Your task to perform on an android device: check battery use Image 0: 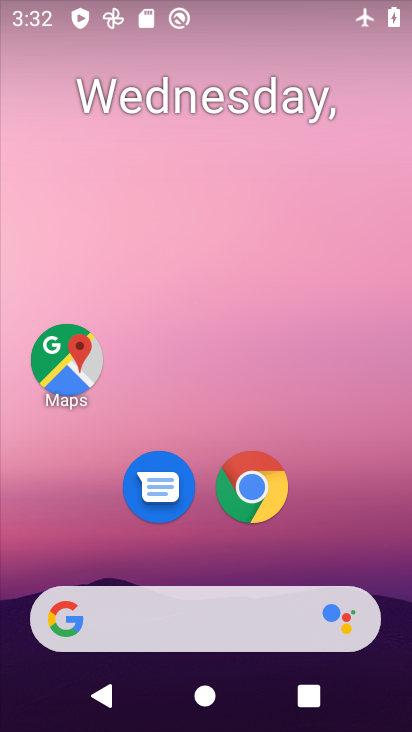
Step 0: drag from (348, 546) to (354, 154)
Your task to perform on an android device: check battery use Image 1: 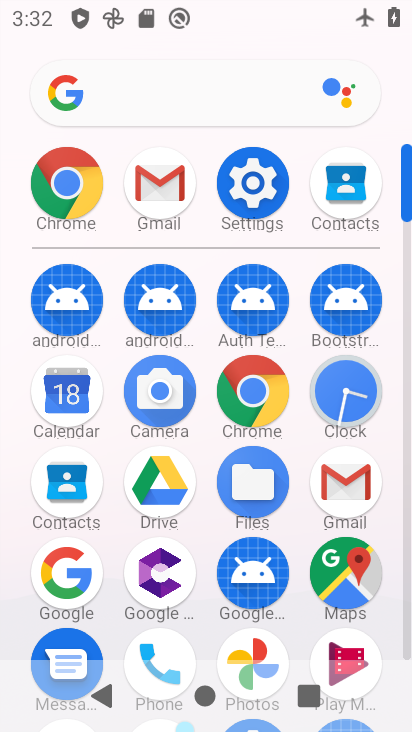
Step 1: click (244, 195)
Your task to perform on an android device: check battery use Image 2: 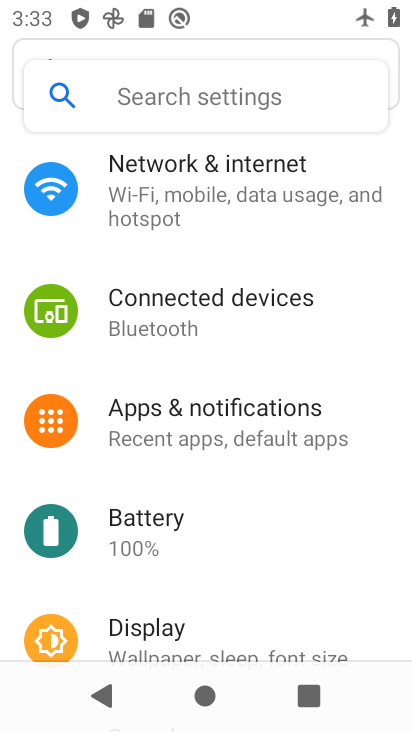
Step 2: drag from (283, 568) to (304, 423)
Your task to perform on an android device: check battery use Image 3: 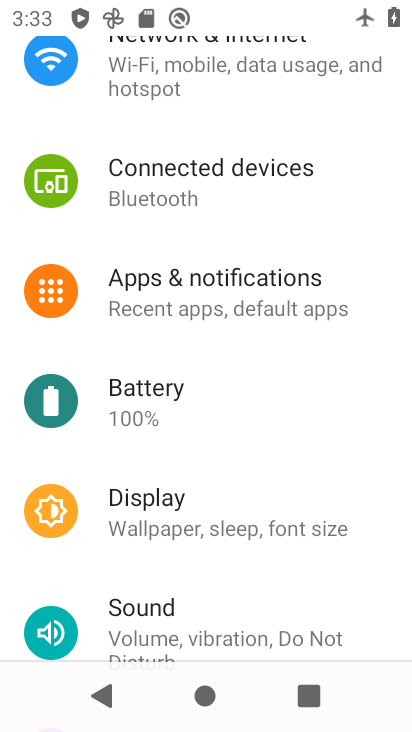
Step 3: drag from (295, 601) to (317, 396)
Your task to perform on an android device: check battery use Image 4: 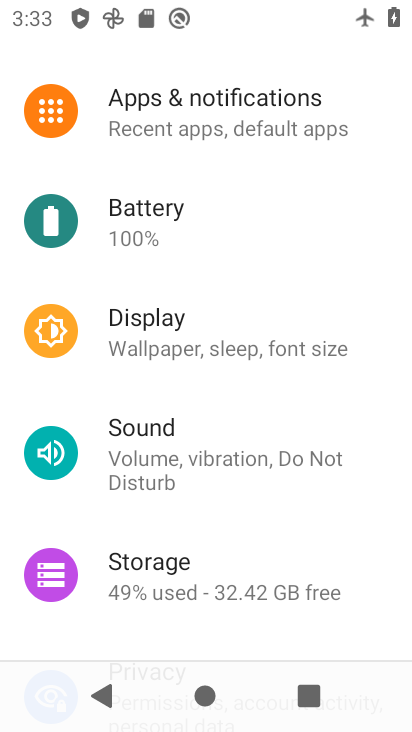
Step 4: drag from (272, 535) to (308, 388)
Your task to perform on an android device: check battery use Image 5: 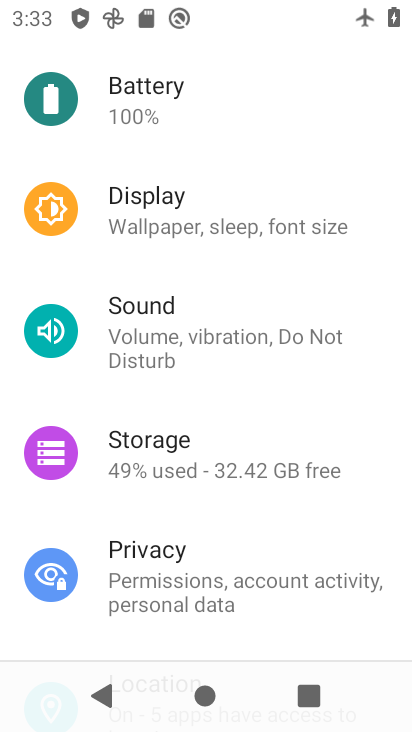
Step 5: drag from (309, 611) to (320, 419)
Your task to perform on an android device: check battery use Image 6: 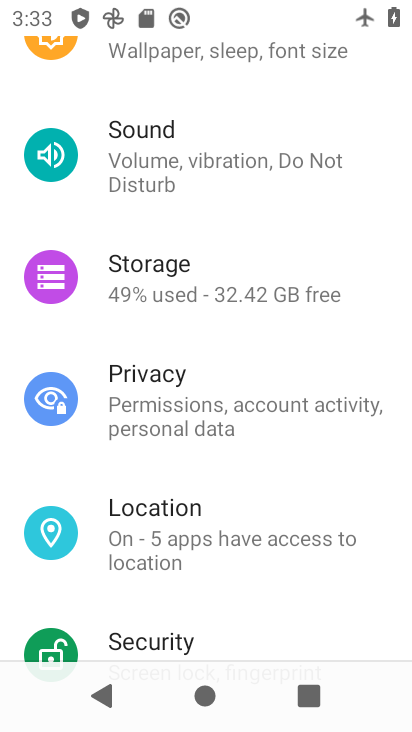
Step 6: drag from (288, 588) to (321, 396)
Your task to perform on an android device: check battery use Image 7: 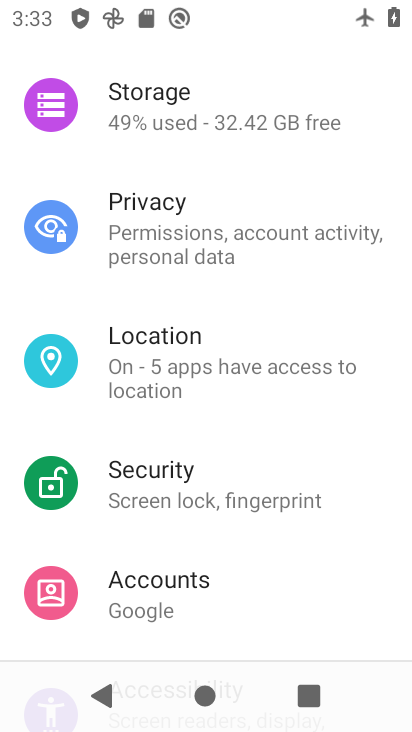
Step 7: drag from (297, 581) to (321, 457)
Your task to perform on an android device: check battery use Image 8: 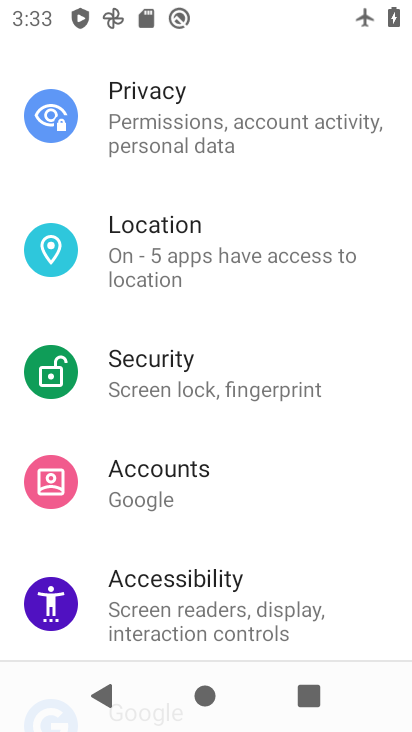
Step 8: drag from (316, 628) to (335, 515)
Your task to perform on an android device: check battery use Image 9: 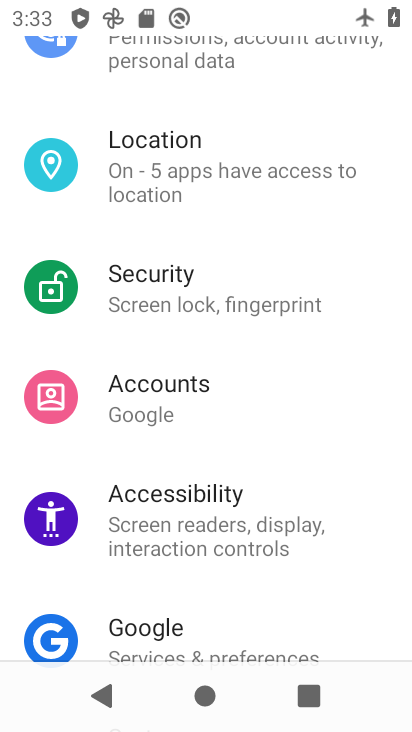
Step 9: drag from (341, 591) to (335, 455)
Your task to perform on an android device: check battery use Image 10: 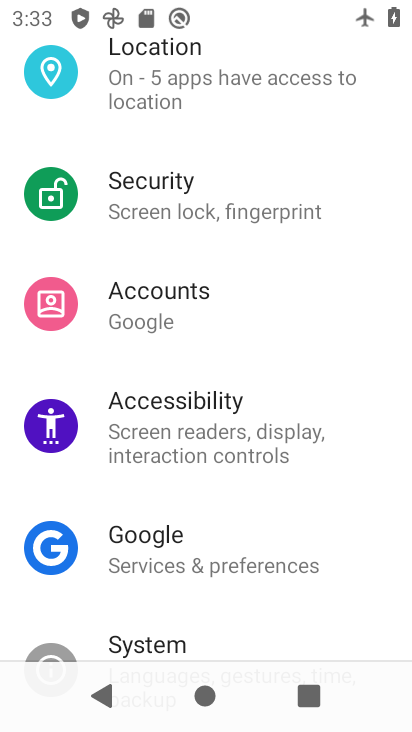
Step 10: drag from (344, 589) to (363, 463)
Your task to perform on an android device: check battery use Image 11: 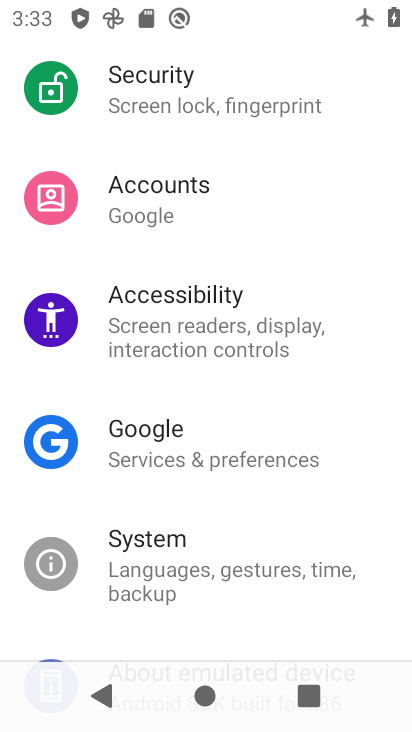
Step 11: drag from (333, 620) to (344, 424)
Your task to perform on an android device: check battery use Image 12: 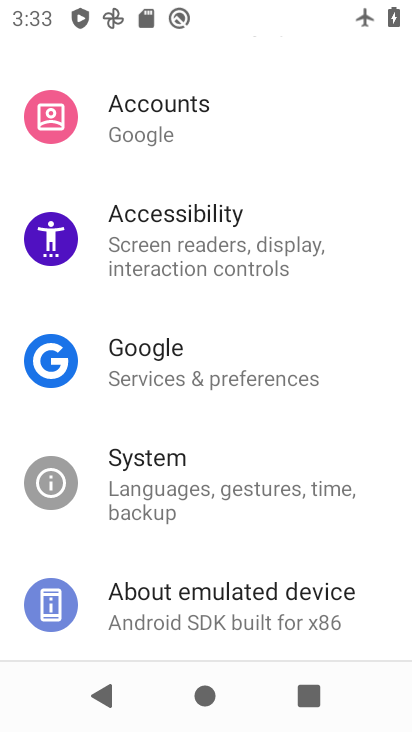
Step 12: drag from (362, 627) to (370, 450)
Your task to perform on an android device: check battery use Image 13: 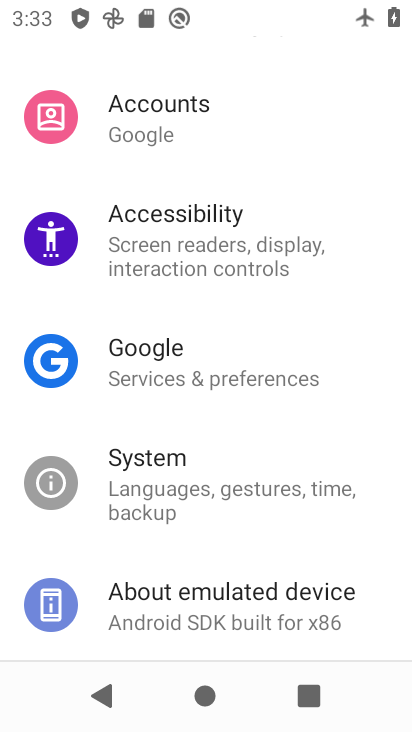
Step 13: drag from (369, 343) to (366, 523)
Your task to perform on an android device: check battery use Image 14: 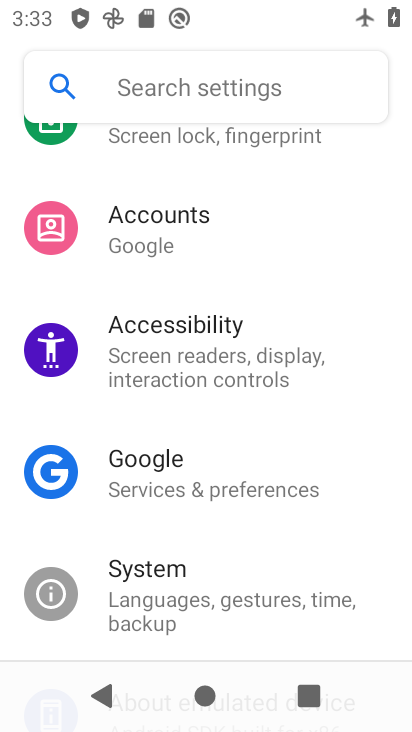
Step 14: drag from (366, 313) to (351, 482)
Your task to perform on an android device: check battery use Image 15: 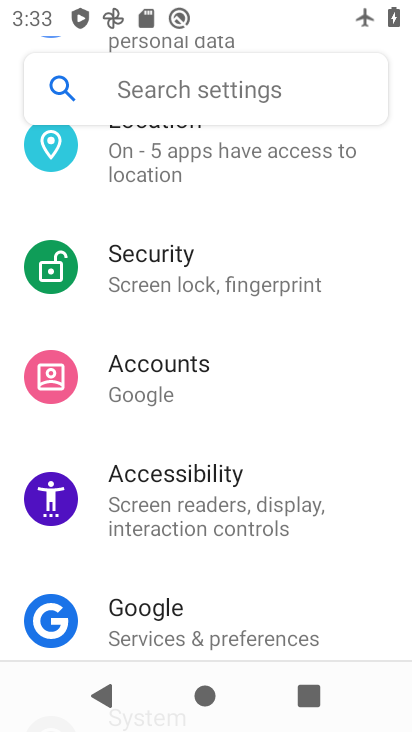
Step 15: drag from (360, 265) to (342, 413)
Your task to perform on an android device: check battery use Image 16: 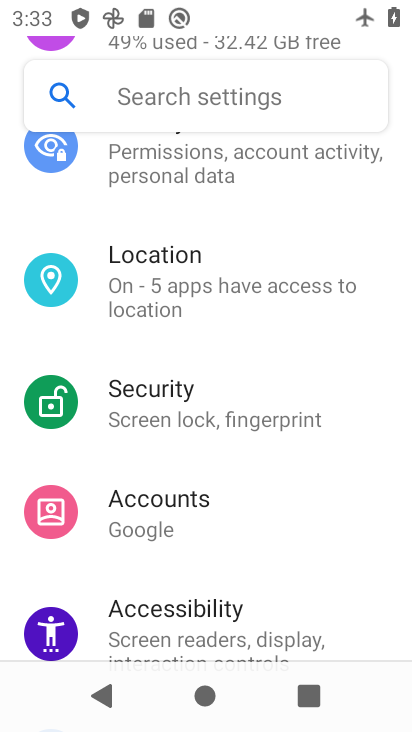
Step 16: drag from (343, 233) to (335, 427)
Your task to perform on an android device: check battery use Image 17: 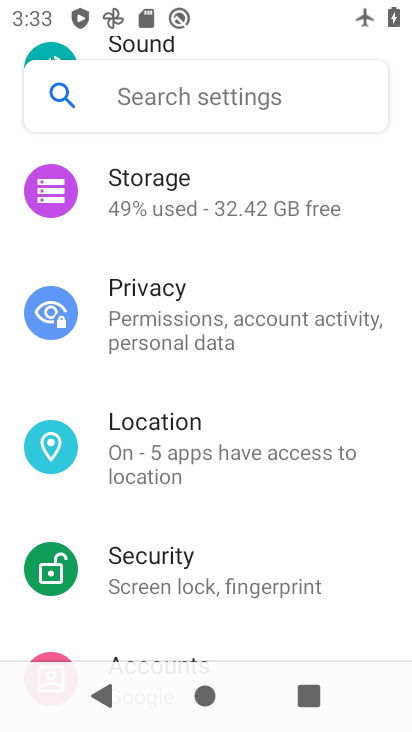
Step 17: drag from (323, 255) to (333, 478)
Your task to perform on an android device: check battery use Image 18: 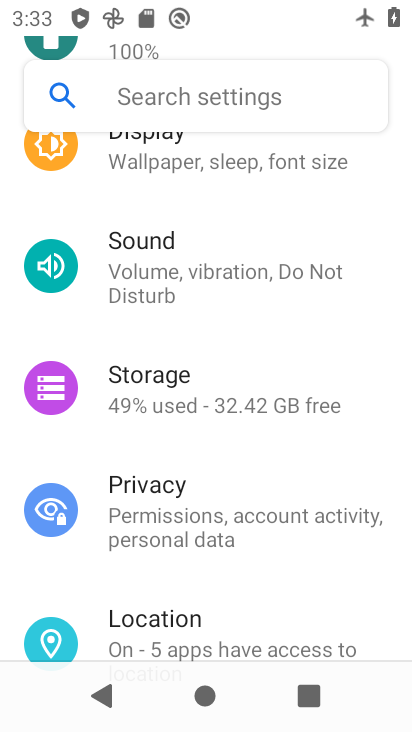
Step 18: drag from (331, 230) to (333, 420)
Your task to perform on an android device: check battery use Image 19: 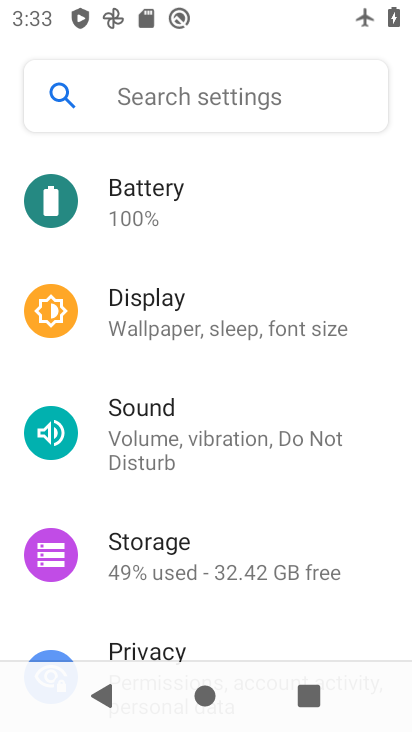
Step 19: drag from (312, 231) to (316, 431)
Your task to perform on an android device: check battery use Image 20: 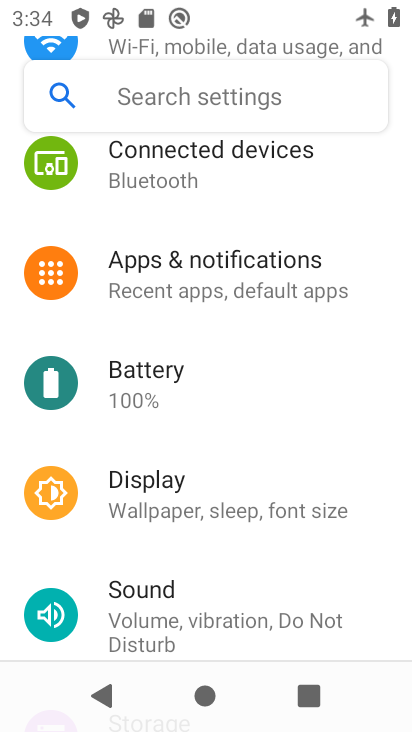
Step 20: click (170, 378)
Your task to perform on an android device: check battery use Image 21: 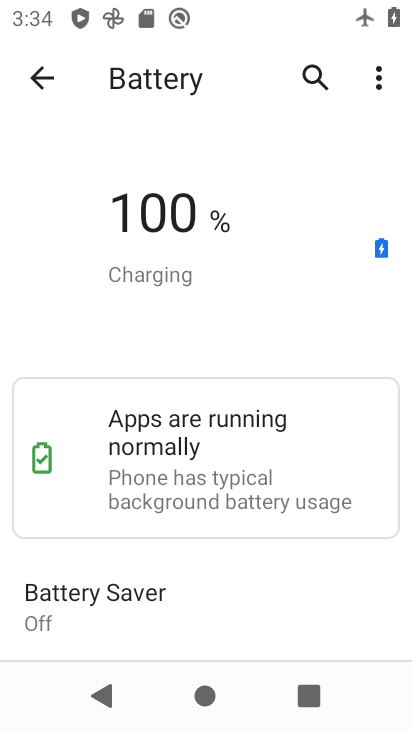
Step 21: click (379, 83)
Your task to perform on an android device: check battery use Image 22: 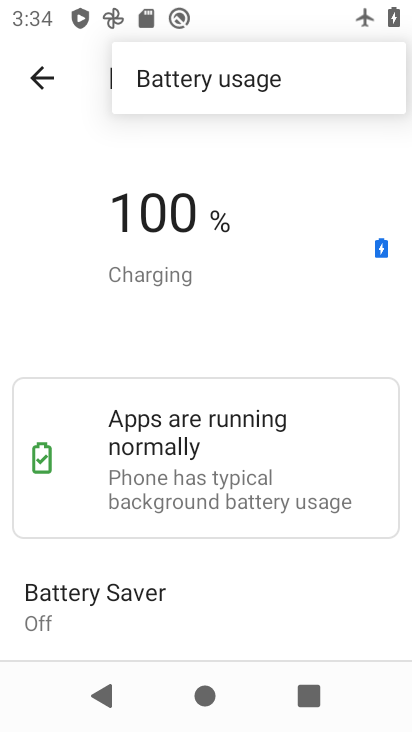
Step 22: click (304, 93)
Your task to perform on an android device: check battery use Image 23: 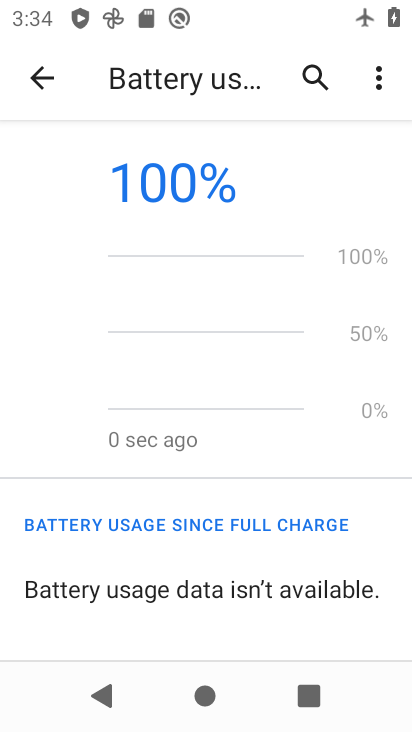
Step 23: task complete